Your task to perform on an android device: change the clock display to show seconds Image 0: 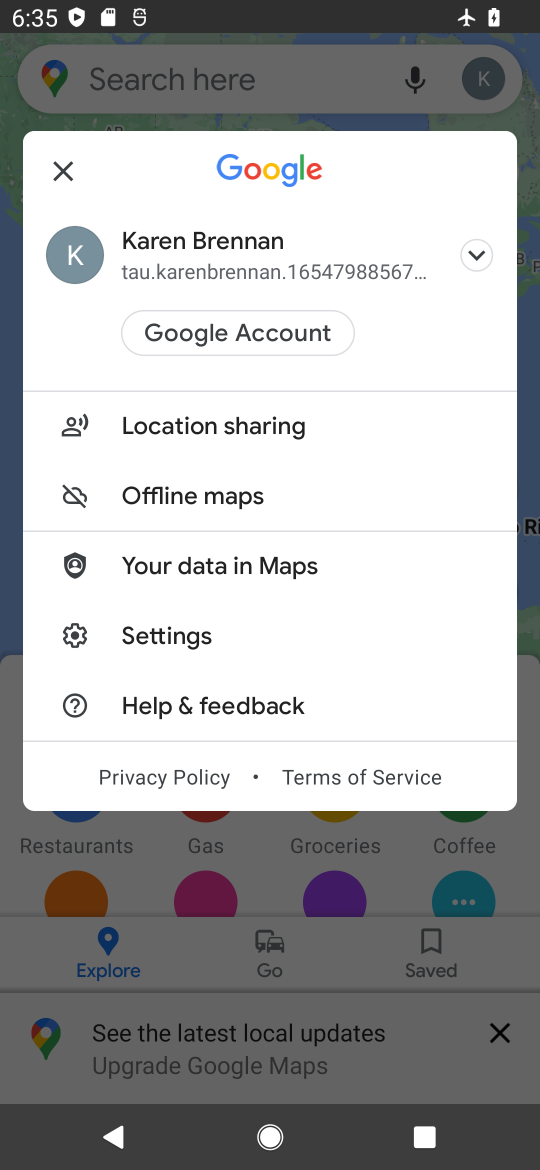
Step 0: press home button
Your task to perform on an android device: change the clock display to show seconds Image 1: 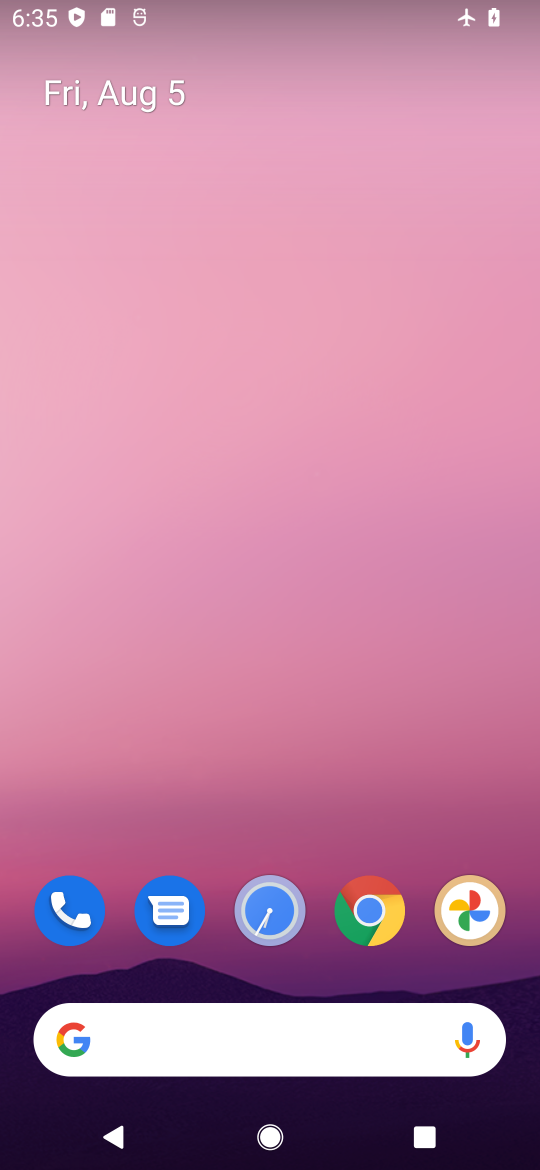
Step 1: drag from (352, 1054) to (302, 22)
Your task to perform on an android device: change the clock display to show seconds Image 2: 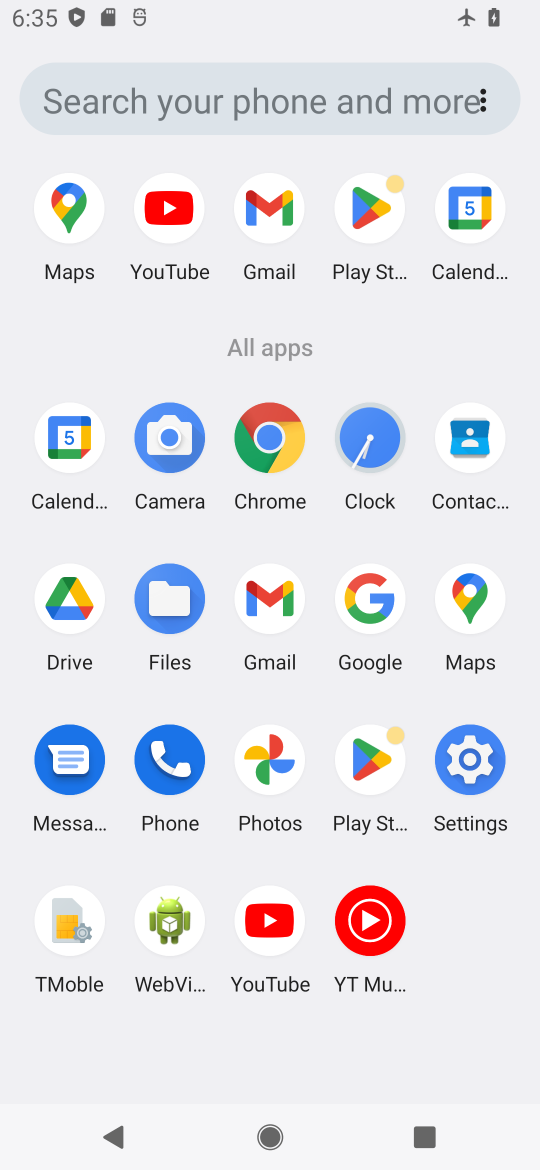
Step 2: click (384, 461)
Your task to perform on an android device: change the clock display to show seconds Image 3: 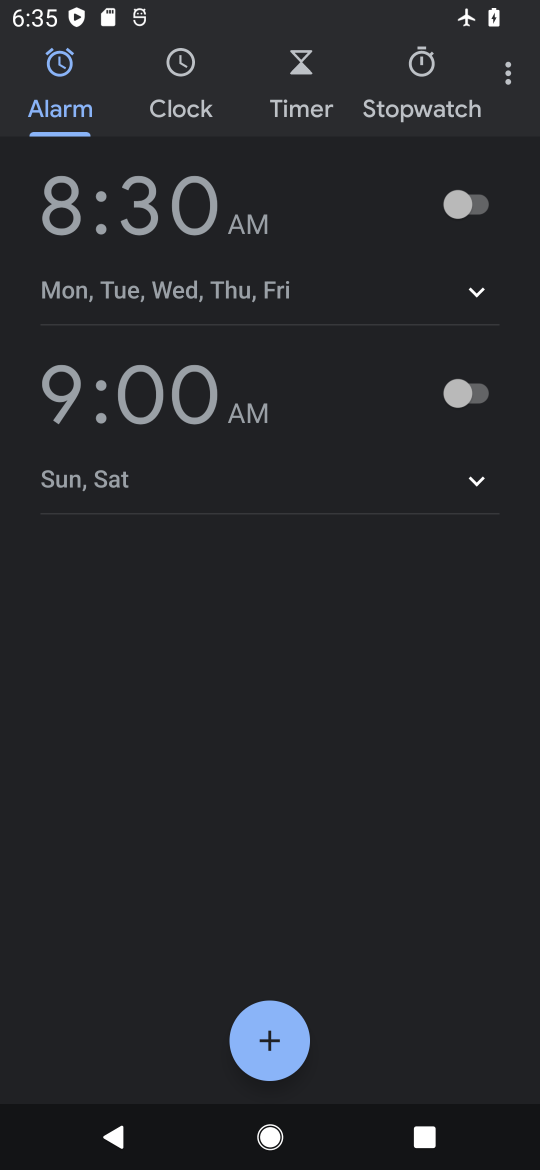
Step 3: click (509, 74)
Your task to perform on an android device: change the clock display to show seconds Image 4: 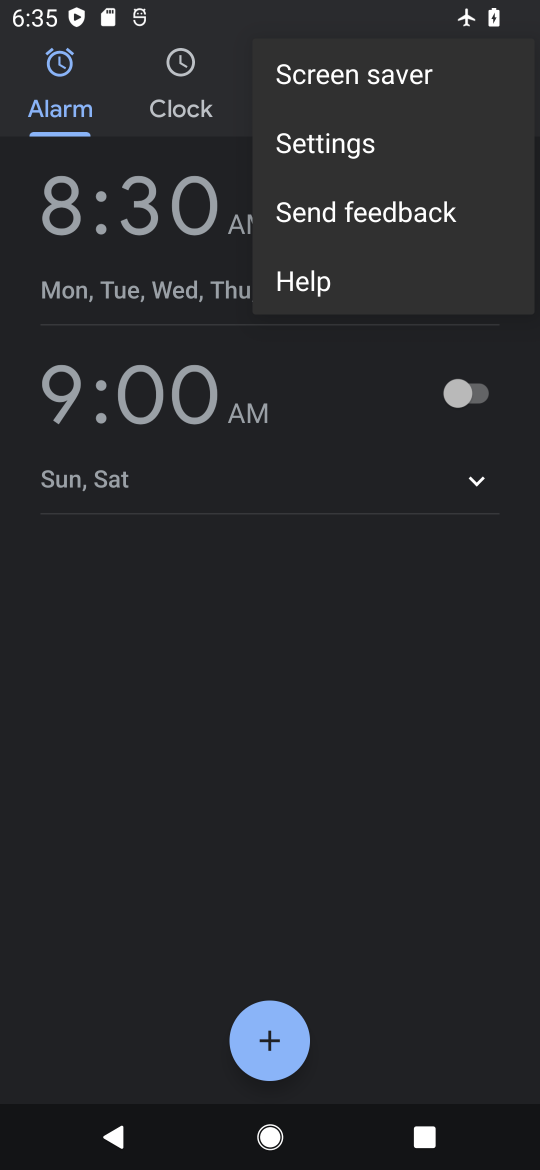
Step 4: click (408, 143)
Your task to perform on an android device: change the clock display to show seconds Image 5: 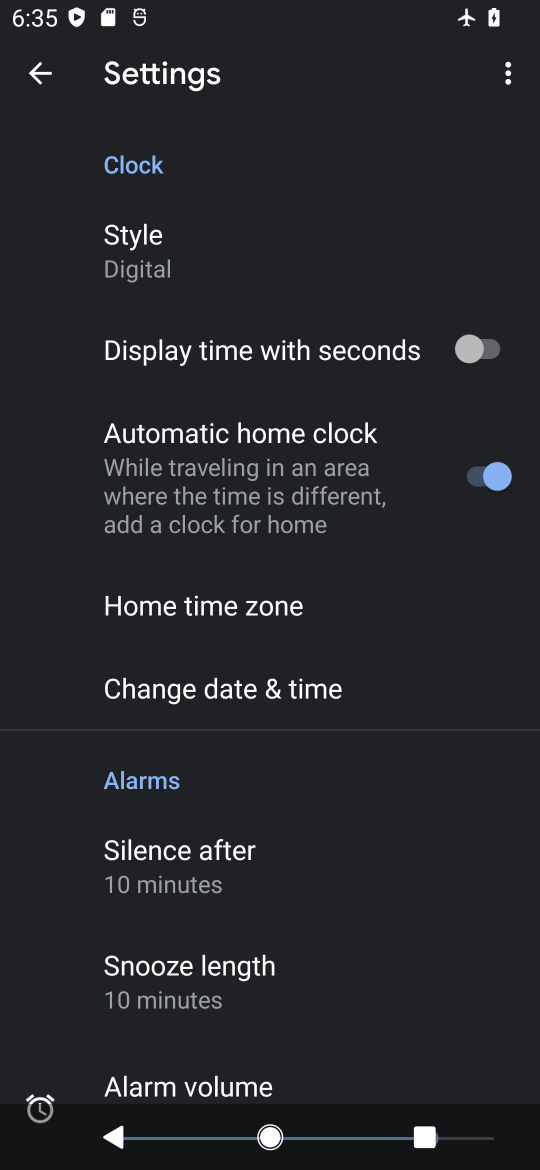
Step 5: click (494, 358)
Your task to perform on an android device: change the clock display to show seconds Image 6: 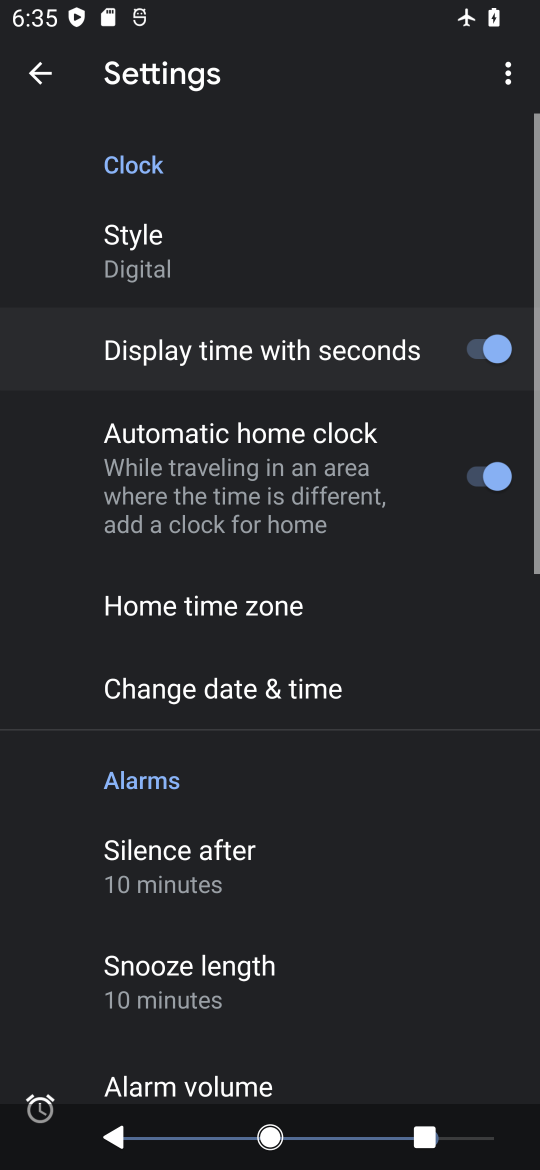
Step 6: task complete